Your task to perform on an android device: toggle wifi Image 0: 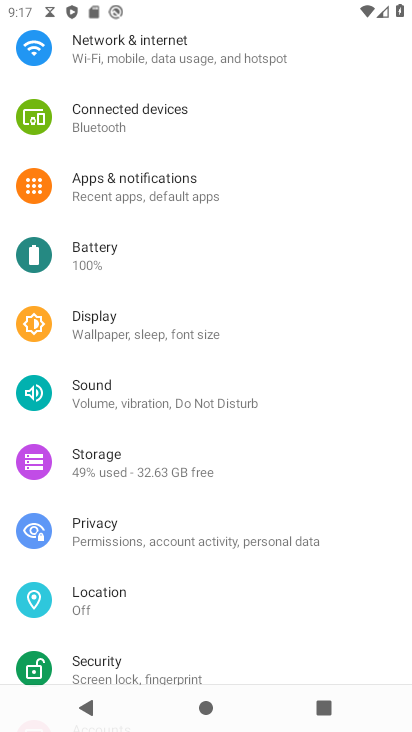
Step 0: press home button
Your task to perform on an android device: toggle wifi Image 1: 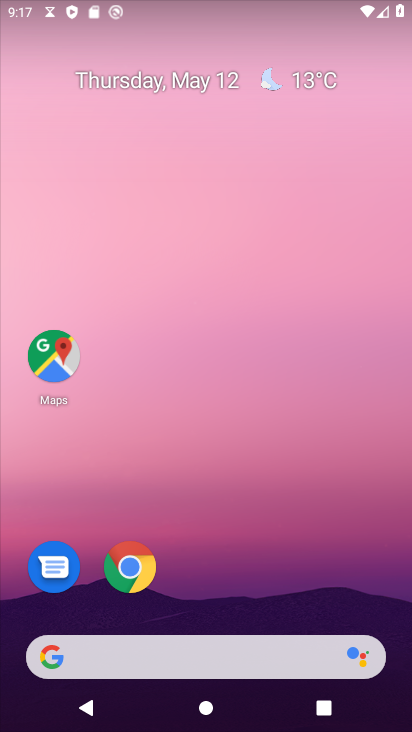
Step 1: drag from (235, 607) to (225, 119)
Your task to perform on an android device: toggle wifi Image 2: 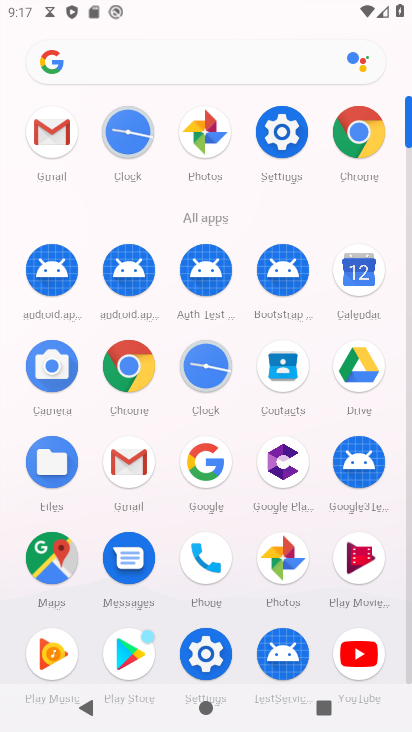
Step 2: click (282, 151)
Your task to perform on an android device: toggle wifi Image 3: 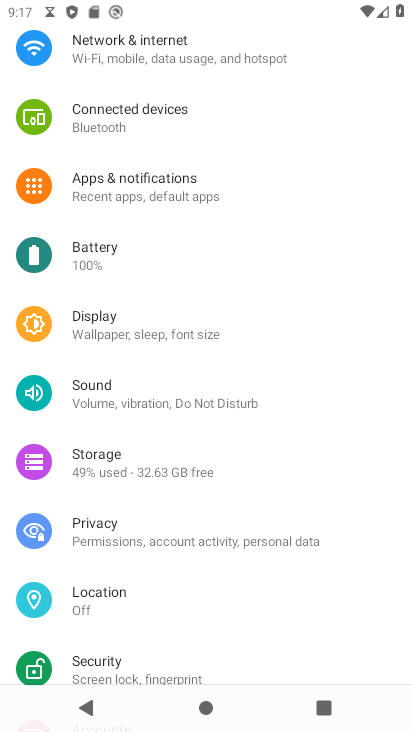
Step 3: click (147, 62)
Your task to perform on an android device: toggle wifi Image 4: 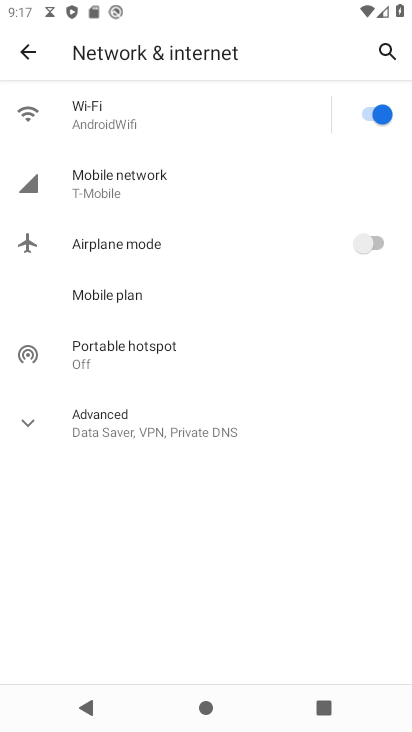
Step 4: click (368, 116)
Your task to perform on an android device: toggle wifi Image 5: 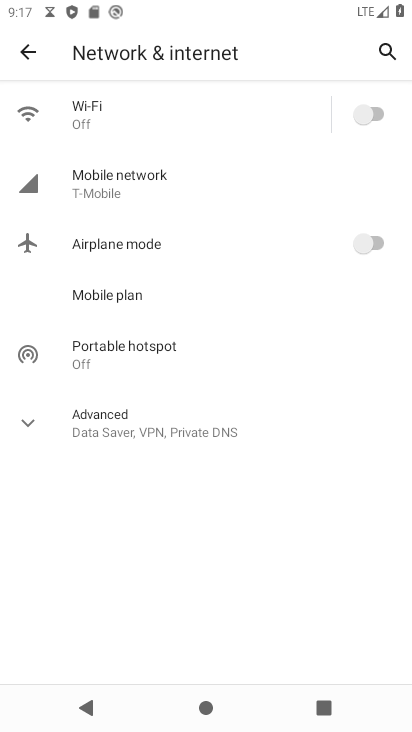
Step 5: task complete